Your task to perform on an android device: toggle sleep mode Image 0: 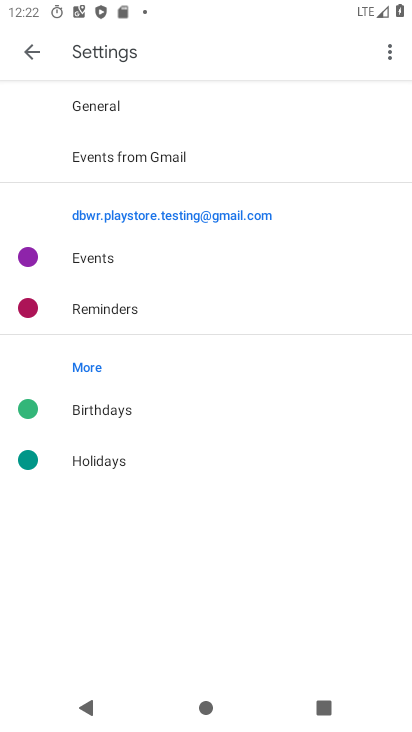
Step 0: press home button
Your task to perform on an android device: toggle sleep mode Image 1: 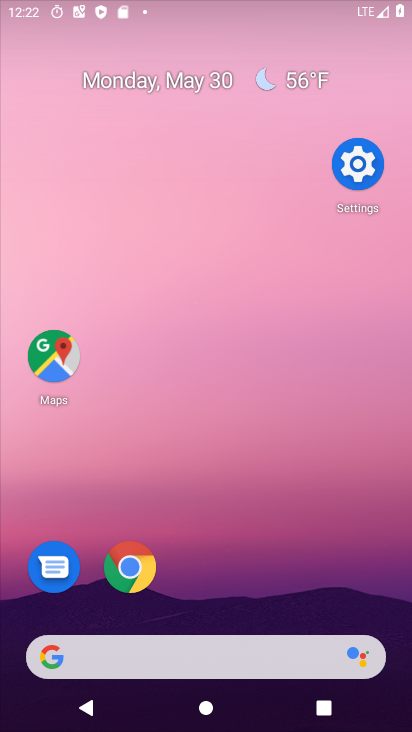
Step 1: drag from (335, 595) to (240, 120)
Your task to perform on an android device: toggle sleep mode Image 2: 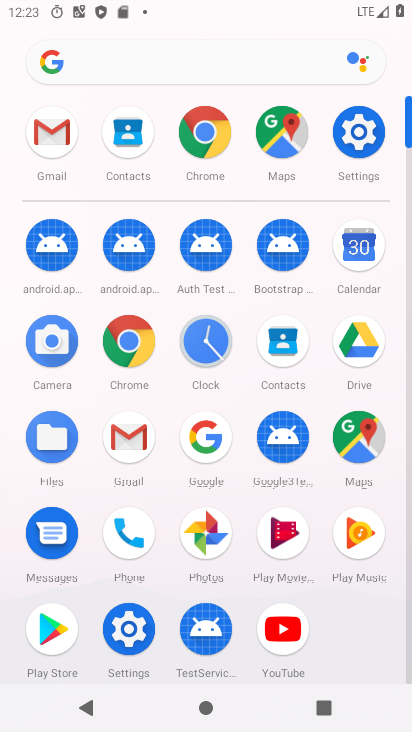
Step 2: click (130, 641)
Your task to perform on an android device: toggle sleep mode Image 3: 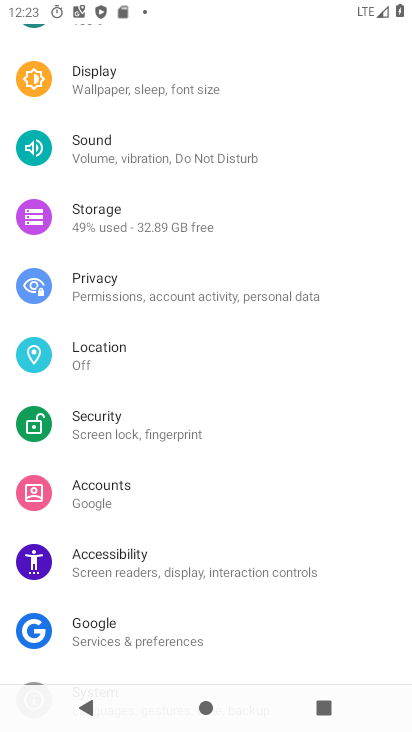
Step 3: drag from (201, 229) to (213, 694)
Your task to perform on an android device: toggle sleep mode Image 4: 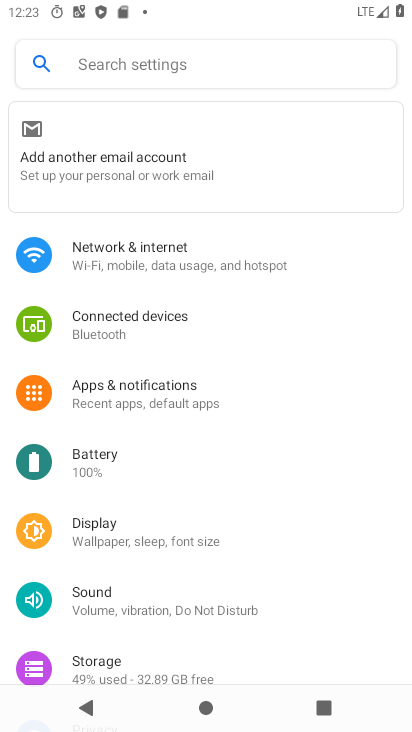
Step 4: click (187, 44)
Your task to perform on an android device: toggle sleep mode Image 5: 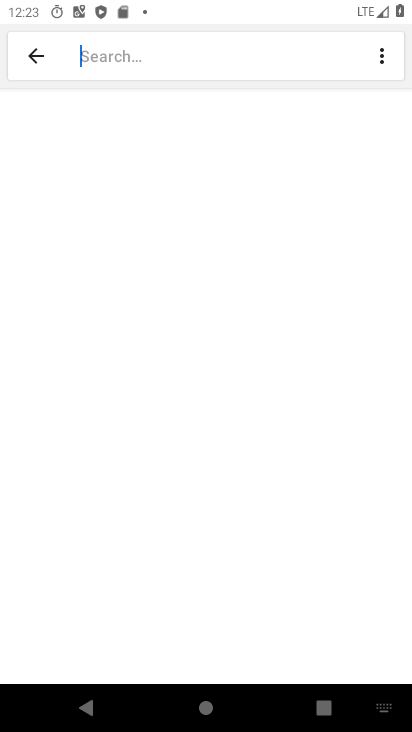
Step 5: type "sleep mode"
Your task to perform on an android device: toggle sleep mode Image 6: 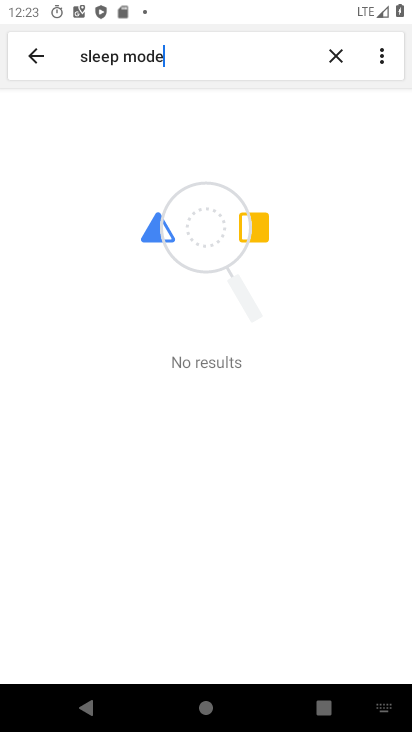
Step 6: task complete